Your task to perform on an android device: add a label to a message in the gmail app Image 0: 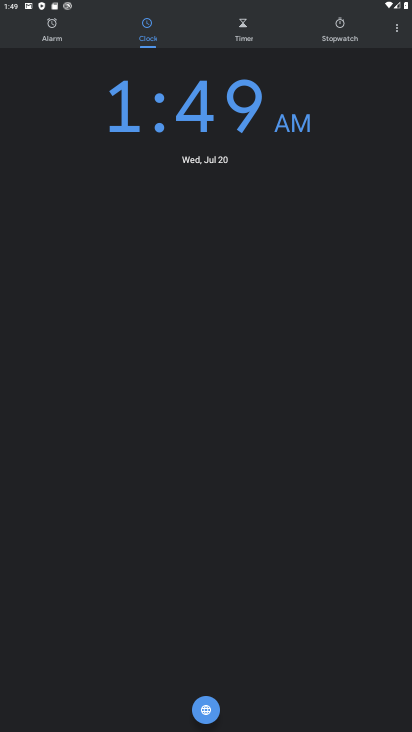
Step 0: press home button
Your task to perform on an android device: add a label to a message in the gmail app Image 1: 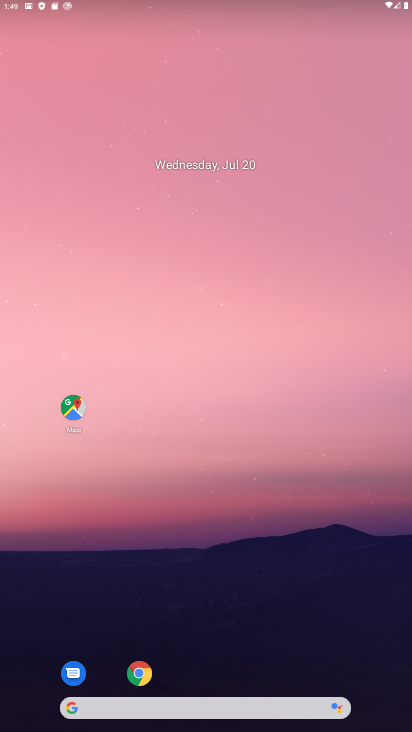
Step 1: drag from (188, 684) to (233, 97)
Your task to perform on an android device: add a label to a message in the gmail app Image 2: 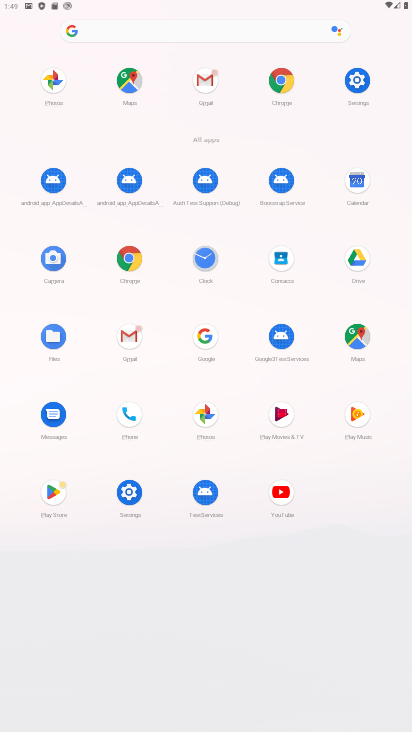
Step 2: click (202, 81)
Your task to perform on an android device: add a label to a message in the gmail app Image 3: 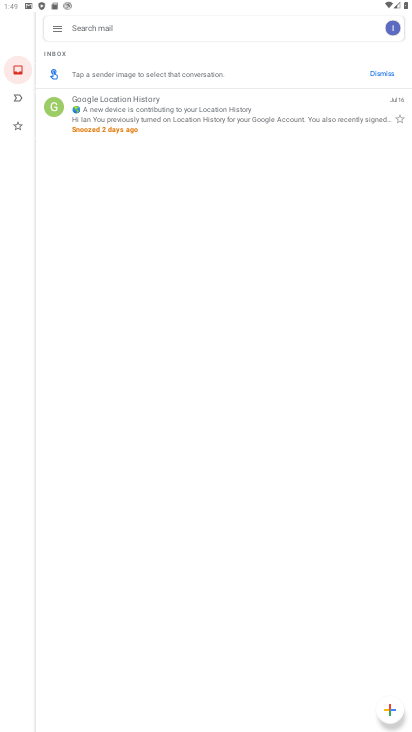
Step 3: click (184, 107)
Your task to perform on an android device: add a label to a message in the gmail app Image 4: 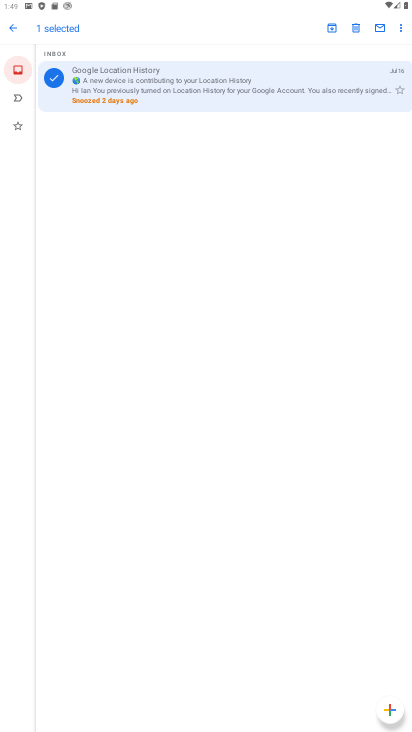
Step 4: click (402, 28)
Your task to perform on an android device: add a label to a message in the gmail app Image 5: 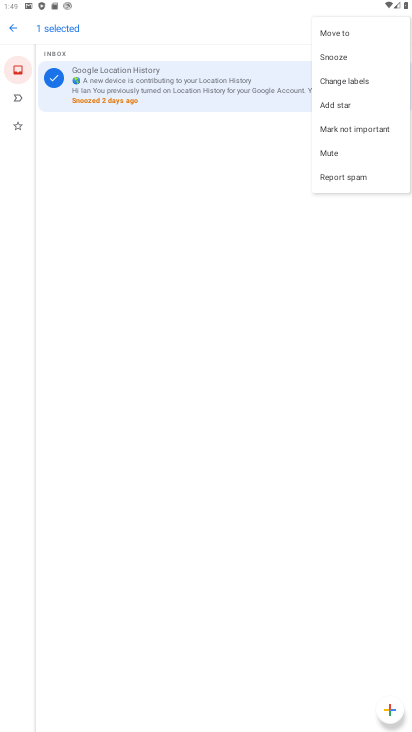
Step 5: click (361, 81)
Your task to perform on an android device: add a label to a message in the gmail app Image 6: 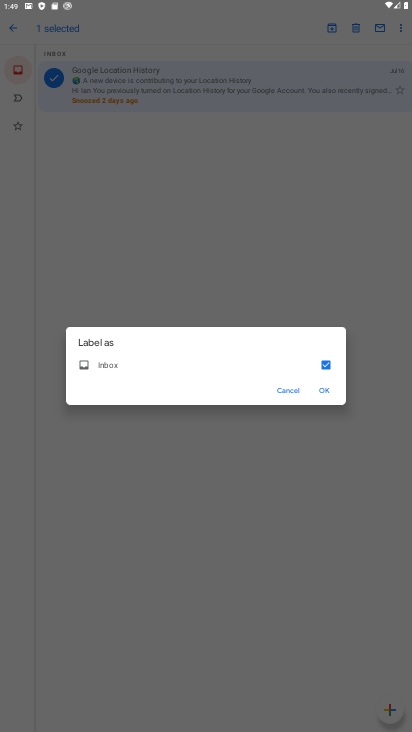
Step 6: click (324, 388)
Your task to perform on an android device: add a label to a message in the gmail app Image 7: 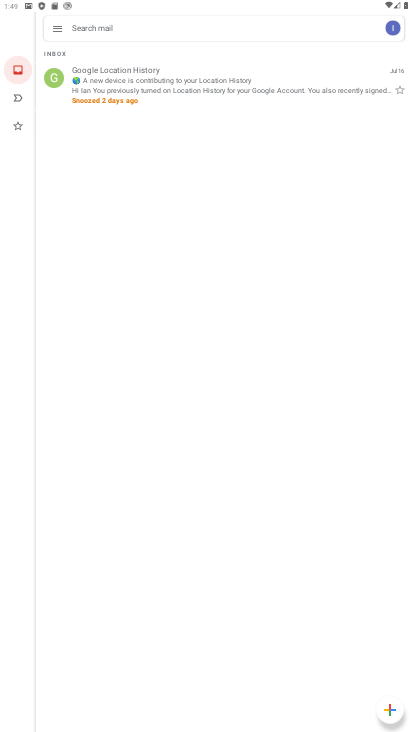
Step 7: task complete